Your task to perform on an android device: turn on notifications settings in the gmail app Image 0: 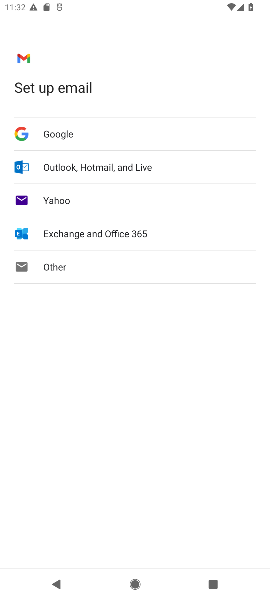
Step 0: press home button
Your task to perform on an android device: turn on notifications settings in the gmail app Image 1: 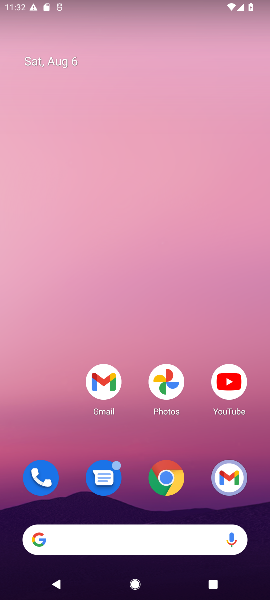
Step 1: click (224, 479)
Your task to perform on an android device: turn on notifications settings in the gmail app Image 2: 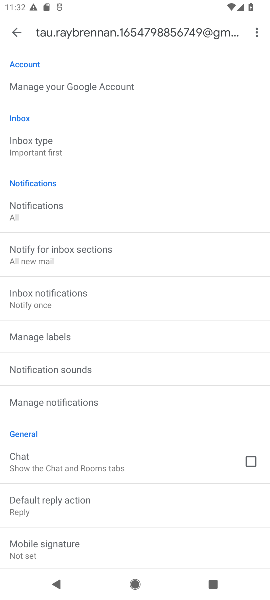
Step 2: click (51, 369)
Your task to perform on an android device: turn on notifications settings in the gmail app Image 3: 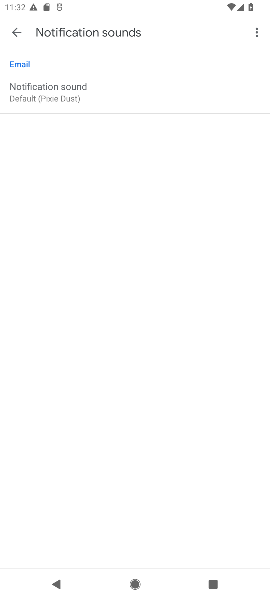
Step 3: click (14, 31)
Your task to perform on an android device: turn on notifications settings in the gmail app Image 4: 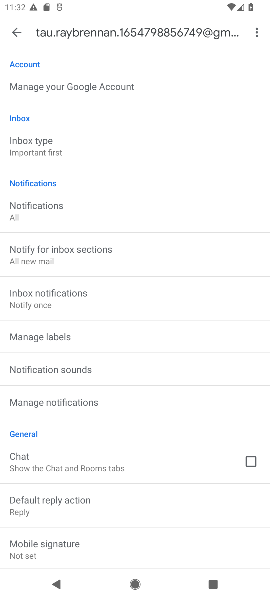
Step 4: click (71, 402)
Your task to perform on an android device: turn on notifications settings in the gmail app Image 5: 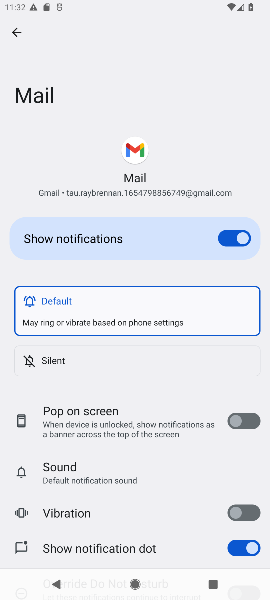
Step 5: task complete